Your task to perform on an android device: Is it going to rain this weekend? Image 0: 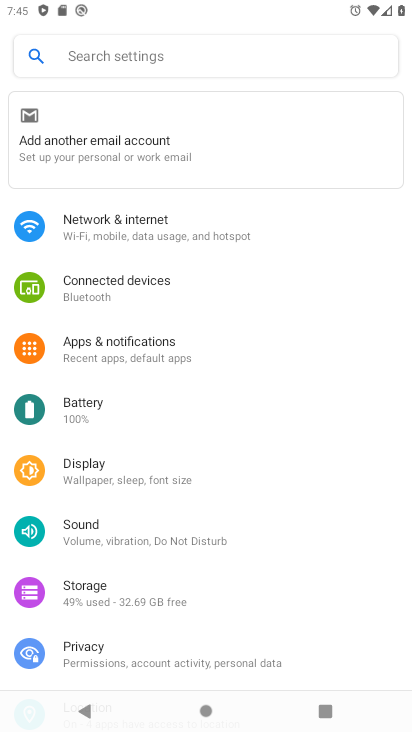
Step 0: press home button
Your task to perform on an android device: Is it going to rain this weekend? Image 1: 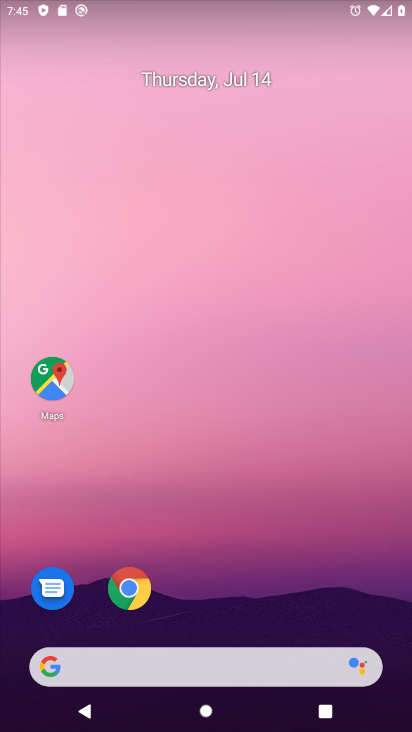
Step 1: click (113, 656)
Your task to perform on an android device: Is it going to rain this weekend? Image 2: 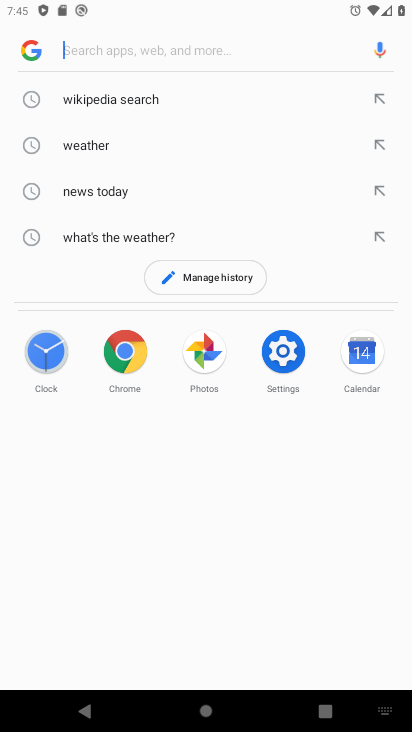
Step 2: type "Is it going to rain this weekend?"
Your task to perform on an android device: Is it going to rain this weekend? Image 3: 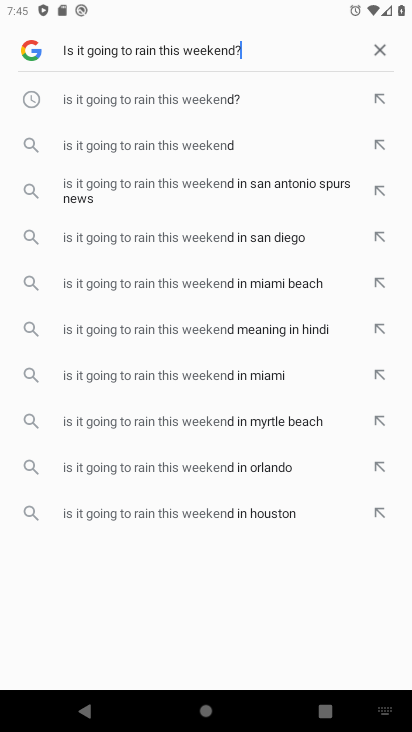
Step 3: type ""
Your task to perform on an android device: Is it going to rain this weekend? Image 4: 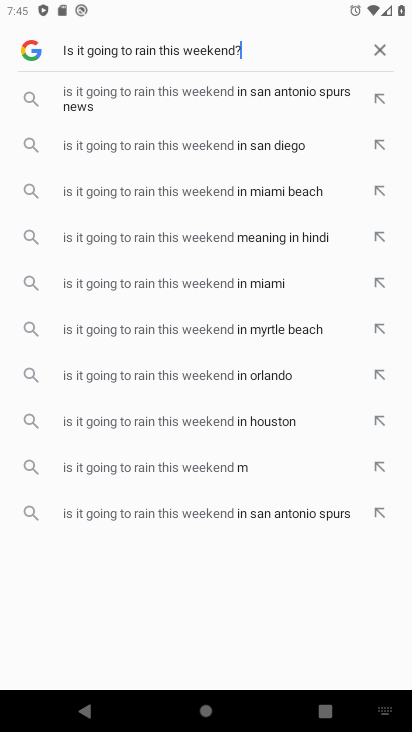
Step 4: type ""
Your task to perform on an android device: Is it going to rain this weekend? Image 5: 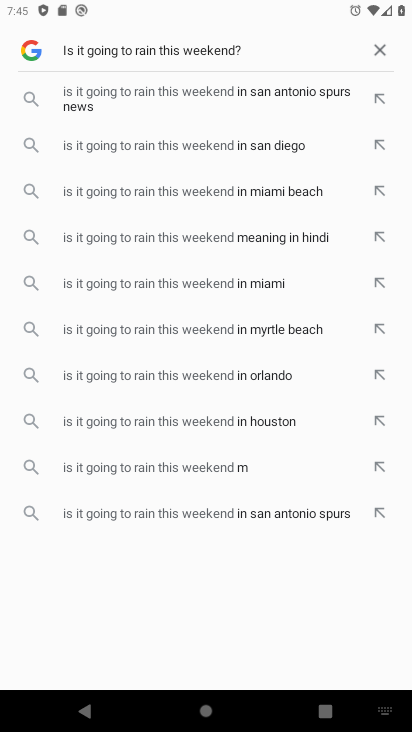
Step 5: type ""
Your task to perform on an android device: Is it going to rain this weekend? Image 6: 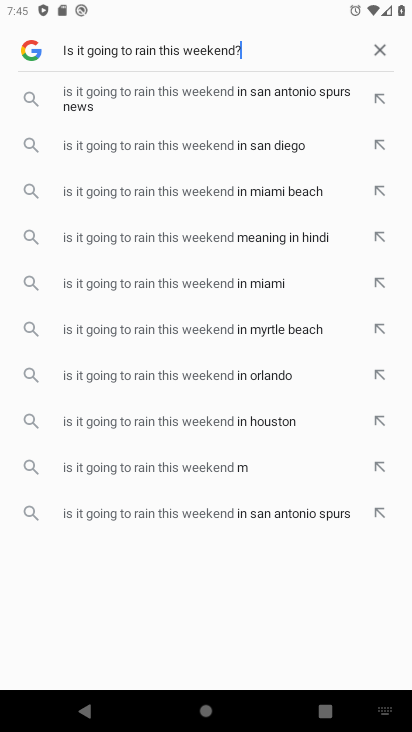
Step 6: task complete